Your task to perform on an android device: search for starred emails in the gmail app Image 0: 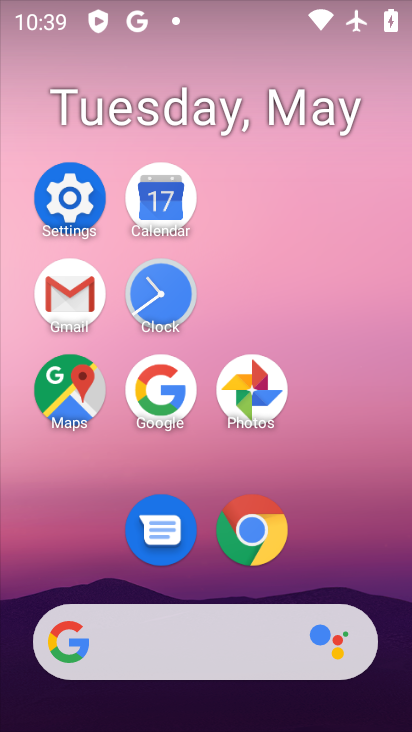
Step 0: click (89, 292)
Your task to perform on an android device: search for starred emails in the gmail app Image 1: 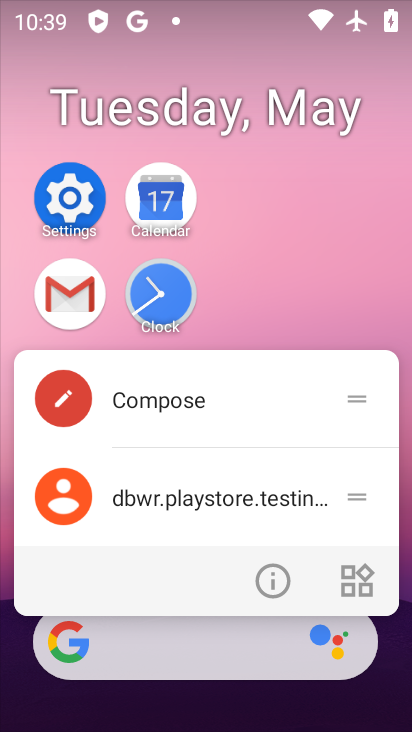
Step 1: click (82, 288)
Your task to perform on an android device: search for starred emails in the gmail app Image 2: 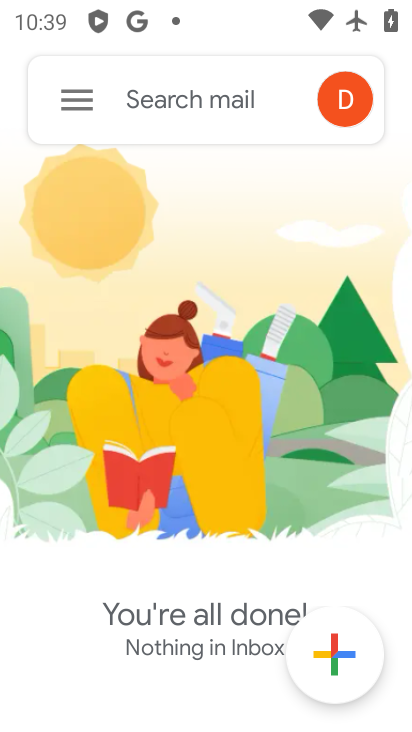
Step 2: click (57, 105)
Your task to perform on an android device: search for starred emails in the gmail app Image 3: 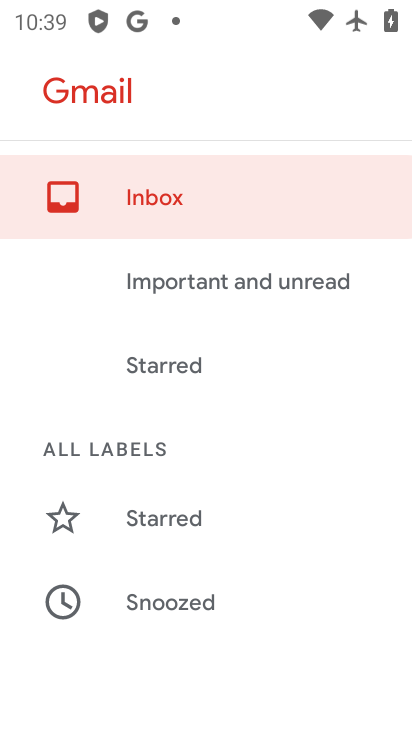
Step 3: click (181, 379)
Your task to perform on an android device: search for starred emails in the gmail app Image 4: 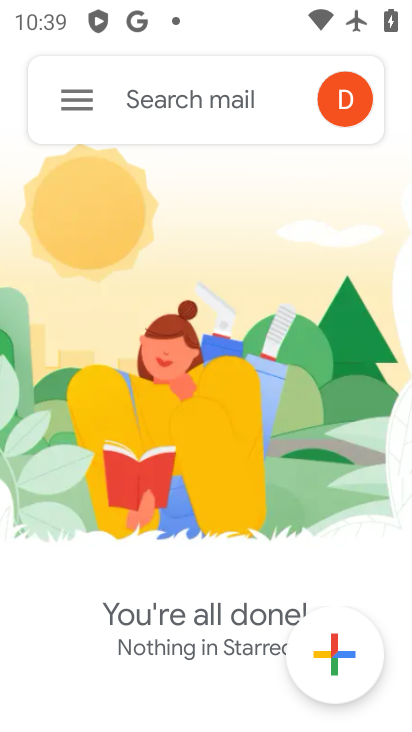
Step 4: click (75, 99)
Your task to perform on an android device: search for starred emails in the gmail app Image 5: 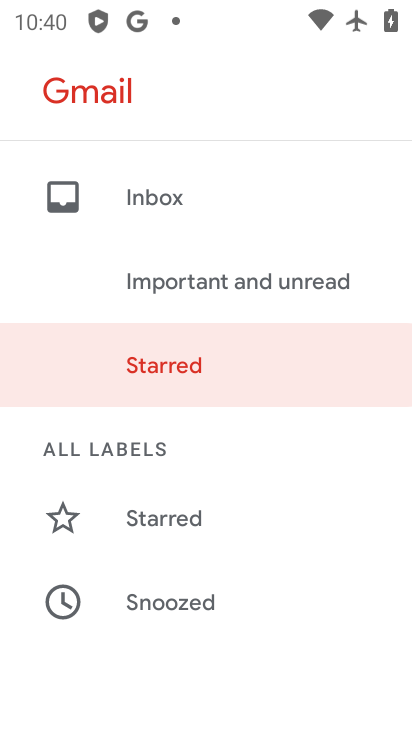
Step 5: click (159, 364)
Your task to perform on an android device: search for starred emails in the gmail app Image 6: 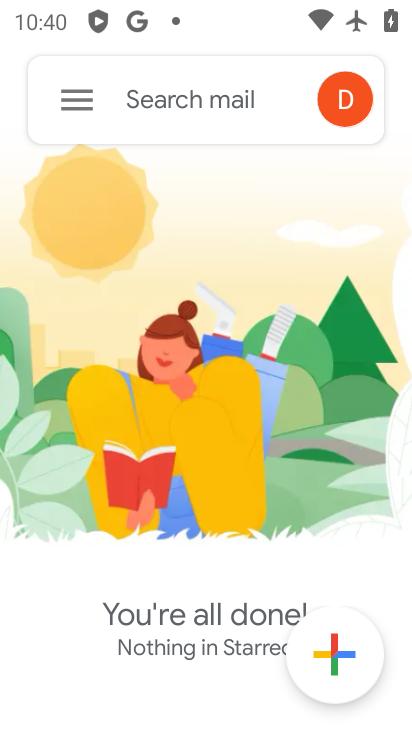
Step 6: task complete